Your task to perform on an android device: turn off improve location accuracy Image 0: 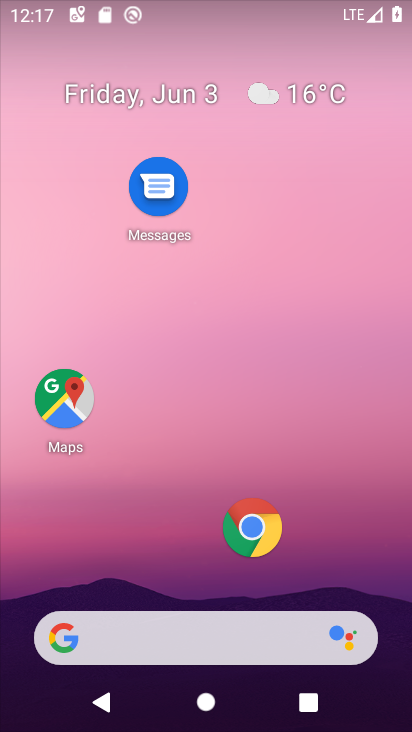
Step 0: press home button
Your task to perform on an android device: turn off improve location accuracy Image 1: 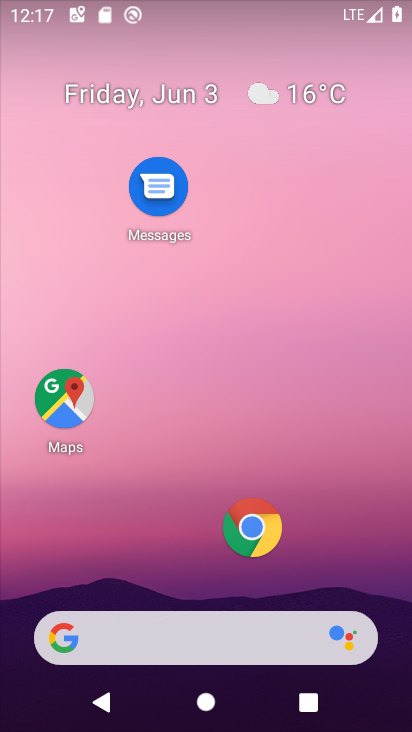
Step 1: drag from (215, 580) to (236, 59)
Your task to perform on an android device: turn off improve location accuracy Image 2: 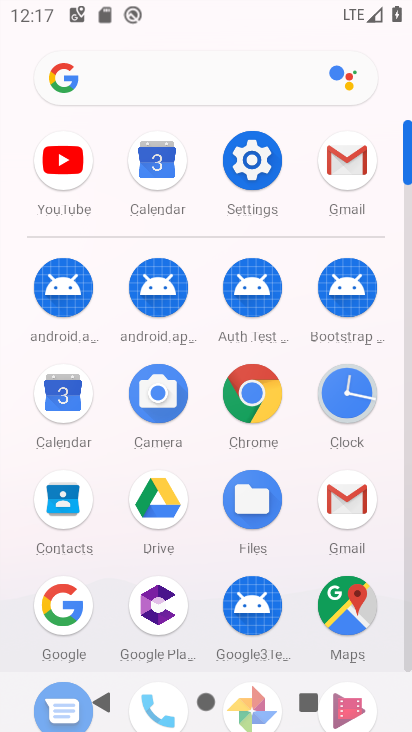
Step 2: click (250, 154)
Your task to perform on an android device: turn off improve location accuracy Image 3: 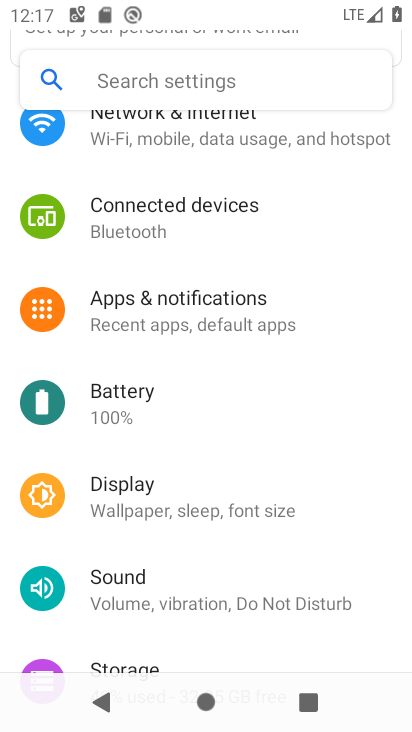
Step 3: drag from (201, 638) to (215, 119)
Your task to perform on an android device: turn off improve location accuracy Image 4: 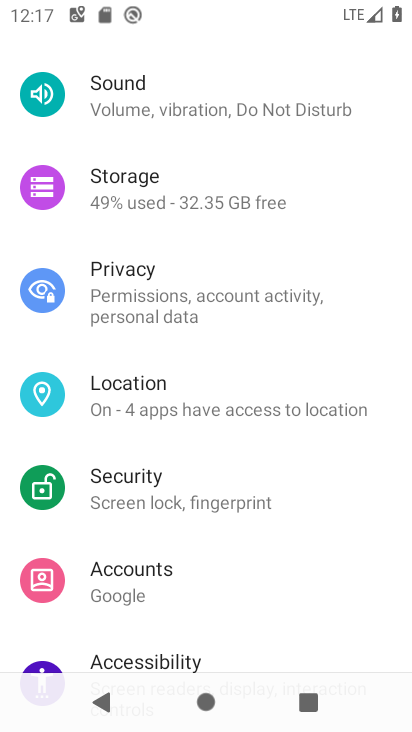
Step 4: click (195, 384)
Your task to perform on an android device: turn off improve location accuracy Image 5: 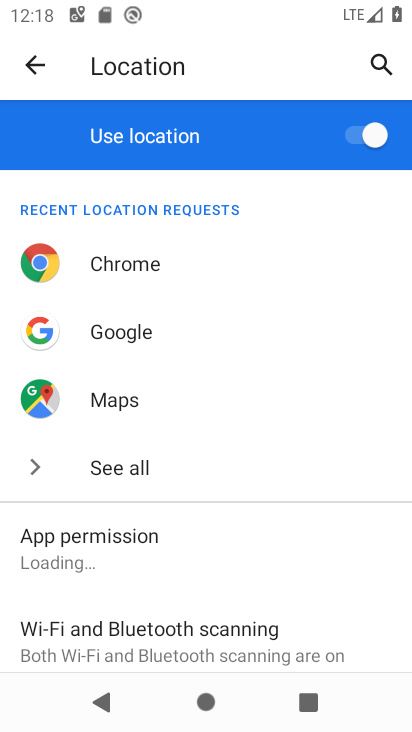
Step 5: drag from (261, 602) to (250, 125)
Your task to perform on an android device: turn off improve location accuracy Image 6: 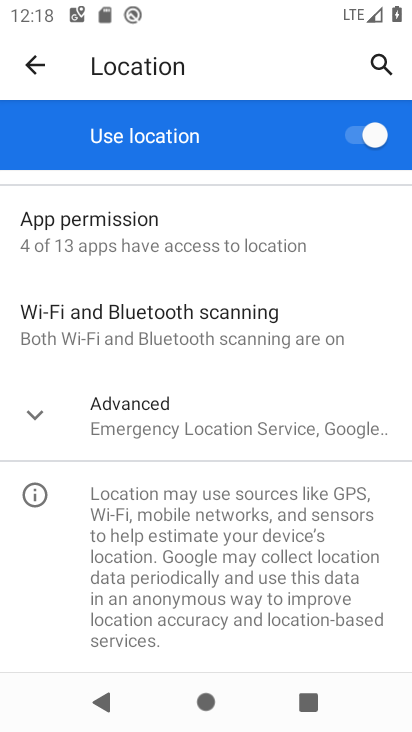
Step 6: click (38, 405)
Your task to perform on an android device: turn off improve location accuracy Image 7: 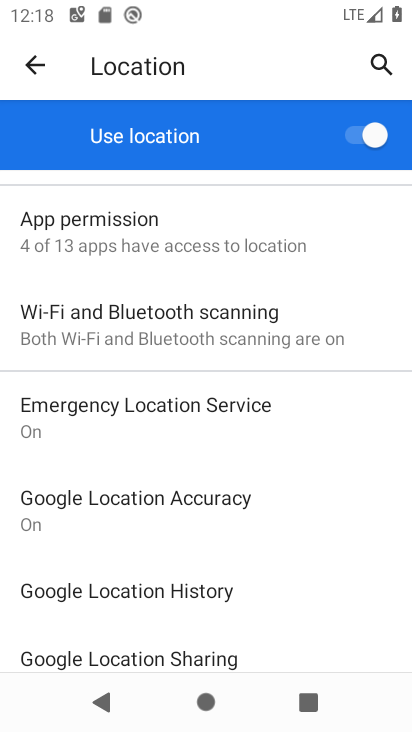
Step 7: click (114, 510)
Your task to perform on an android device: turn off improve location accuracy Image 8: 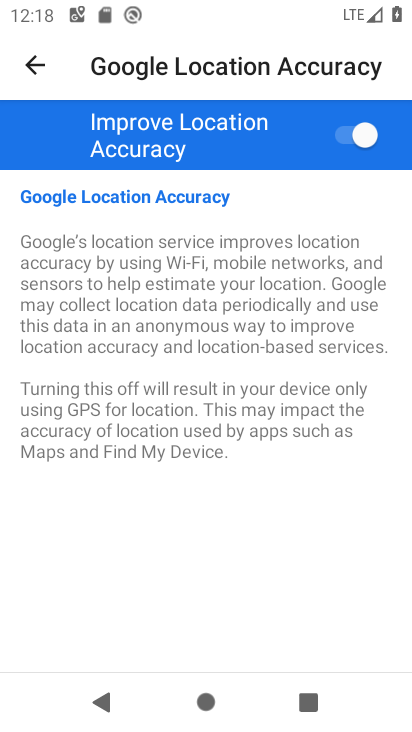
Step 8: click (348, 129)
Your task to perform on an android device: turn off improve location accuracy Image 9: 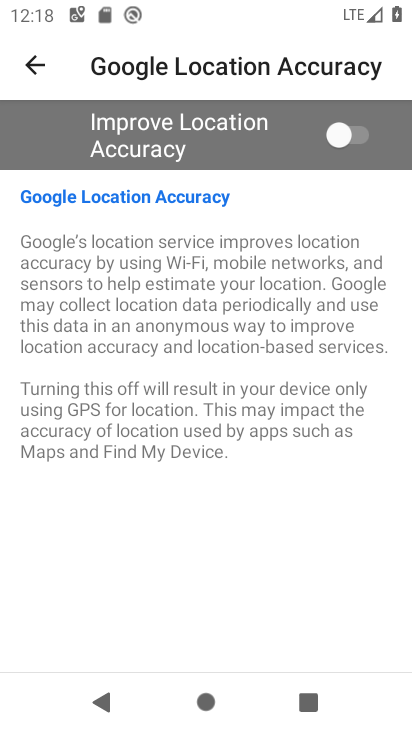
Step 9: task complete